Your task to perform on an android device: Open the Play Movies app and select the watchlist tab. Image 0: 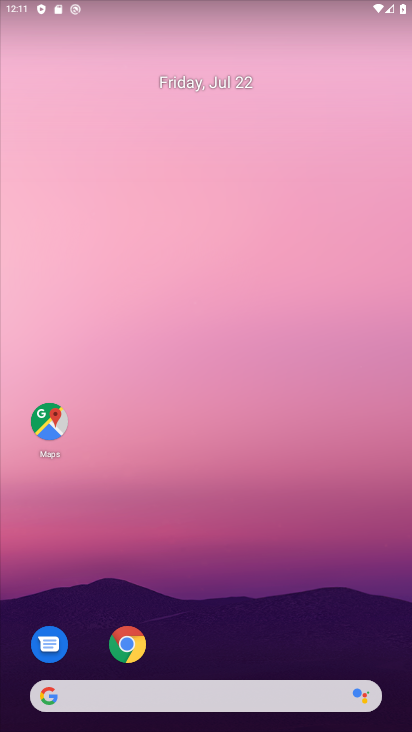
Step 0: press home button
Your task to perform on an android device: Open the Play Movies app and select the watchlist tab. Image 1: 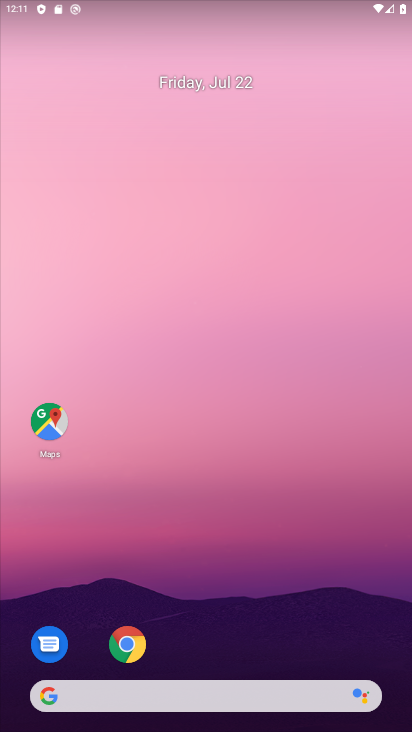
Step 1: drag from (189, 676) to (266, 119)
Your task to perform on an android device: Open the Play Movies app and select the watchlist tab. Image 2: 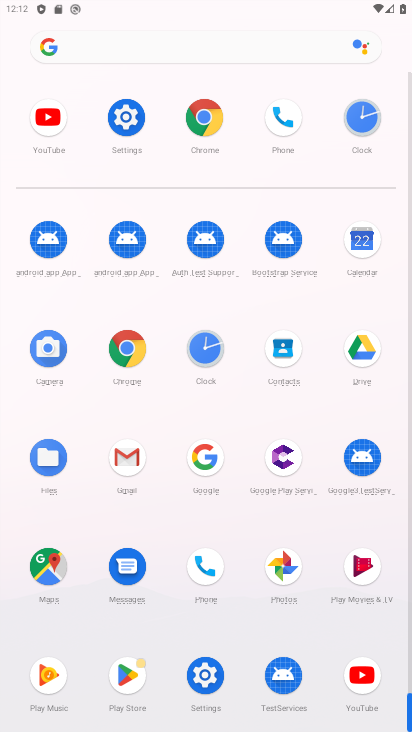
Step 2: drag from (234, 462) to (326, 165)
Your task to perform on an android device: Open the Play Movies app and select the watchlist tab. Image 3: 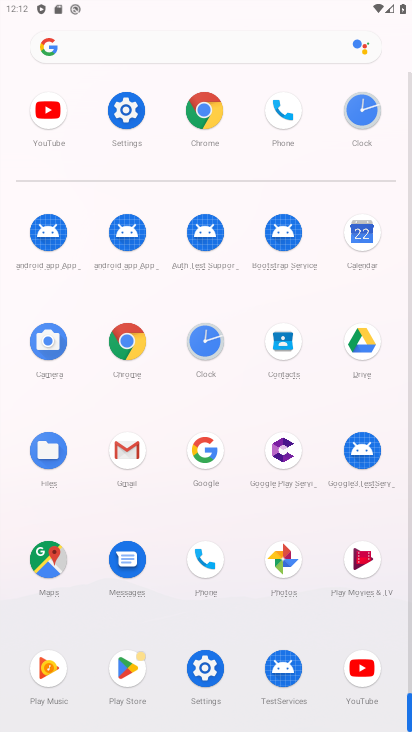
Step 3: click (353, 575)
Your task to perform on an android device: Open the Play Movies app and select the watchlist tab. Image 4: 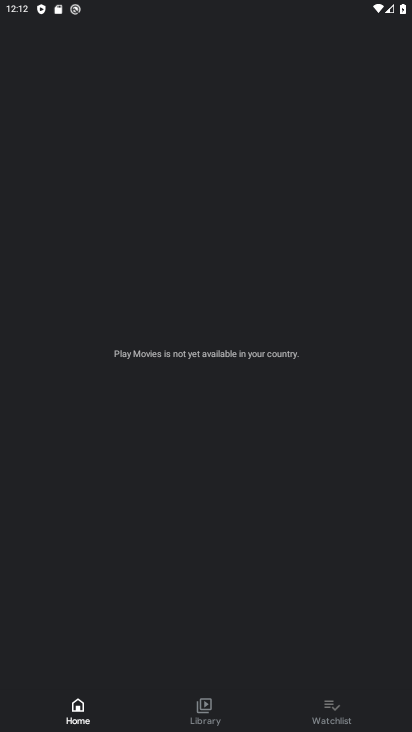
Step 4: click (321, 731)
Your task to perform on an android device: Open the Play Movies app and select the watchlist tab. Image 5: 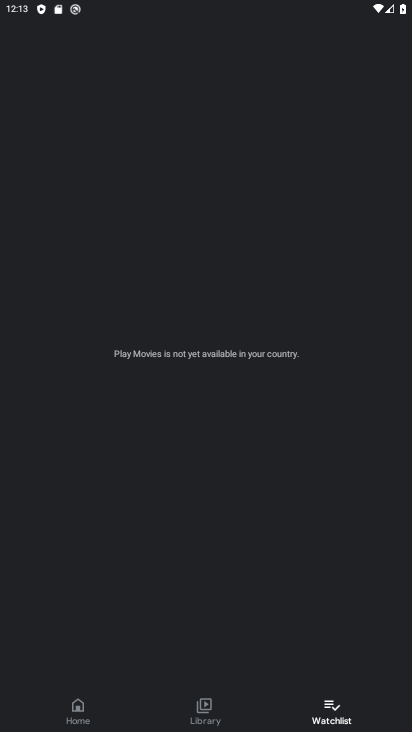
Step 5: task complete